Your task to perform on an android device: Go to Maps Image 0: 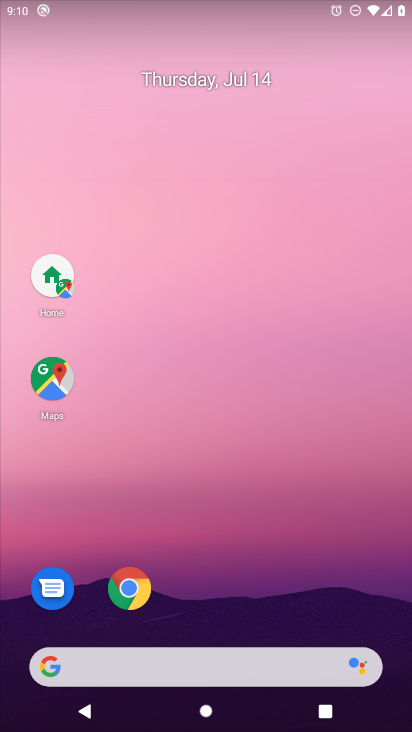
Step 0: click (71, 371)
Your task to perform on an android device: Go to Maps Image 1: 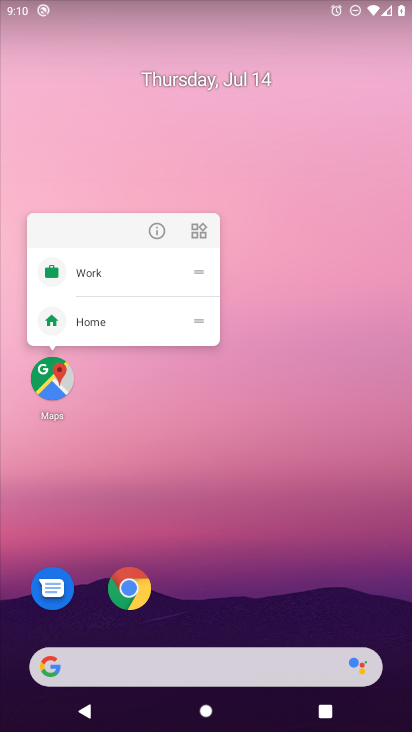
Step 1: click (45, 375)
Your task to perform on an android device: Go to Maps Image 2: 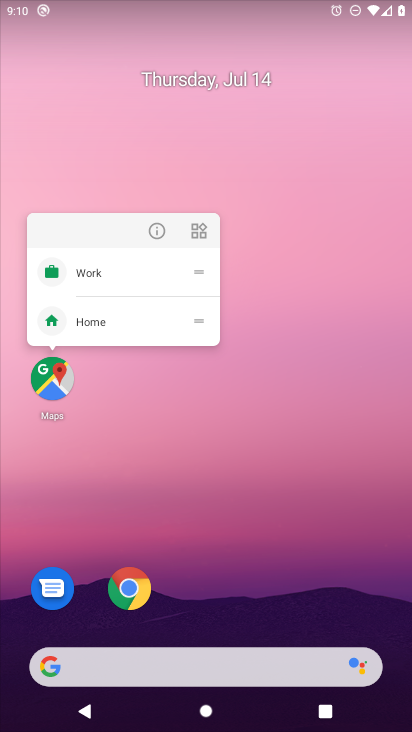
Step 2: click (46, 371)
Your task to perform on an android device: Go to Maps Image 3: 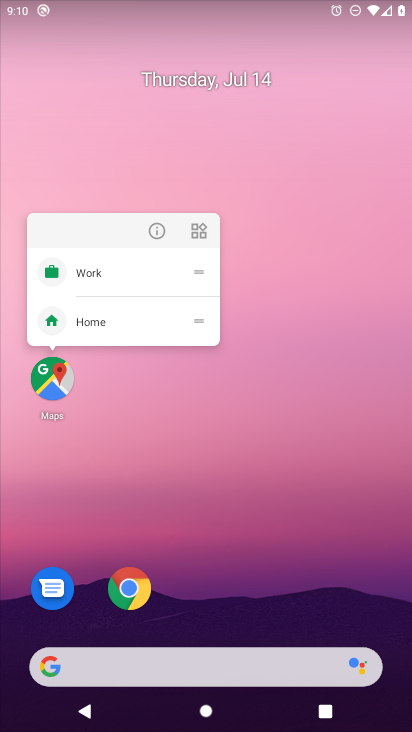
Step 3: task complete